Your task to perform on an android device: Set the phone to "Do not disturb". Image 0: 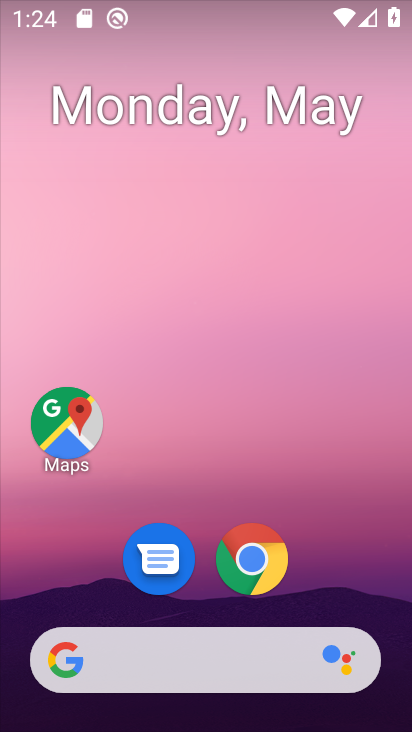
Step 0: click (257, 83)
Your task to perform on an android device: Set the phone to "Do not disturb". Image 1: 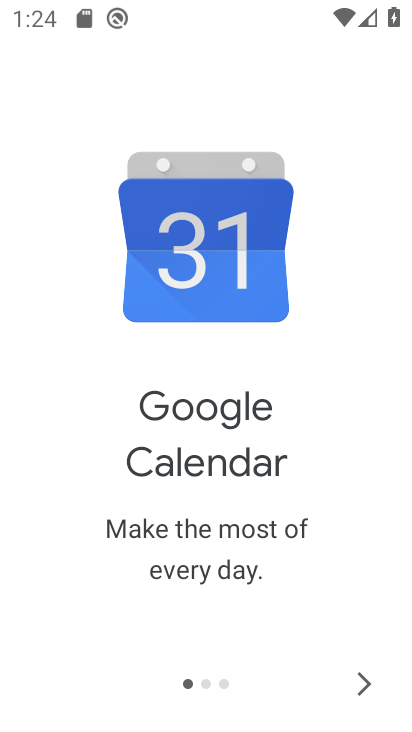
Step 1: press home button
Your task to perform on an android device: Set the phone to "Do not disturb". Image 2: 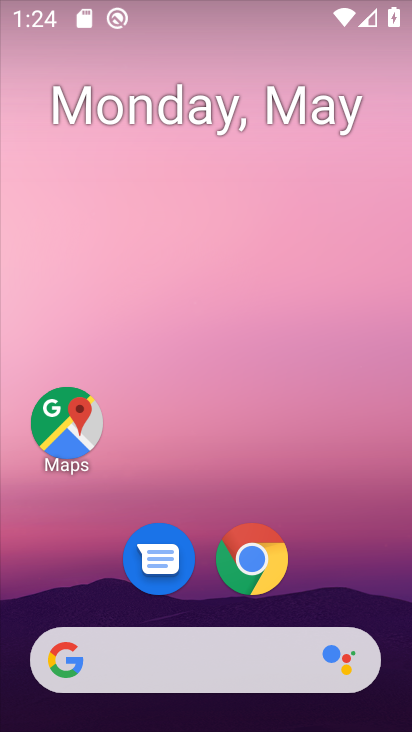
Step 2: drag from (332, 583) to (293, 172)
Your task to perform on an android device: Set the phone to "Do not disturb". Image 3: 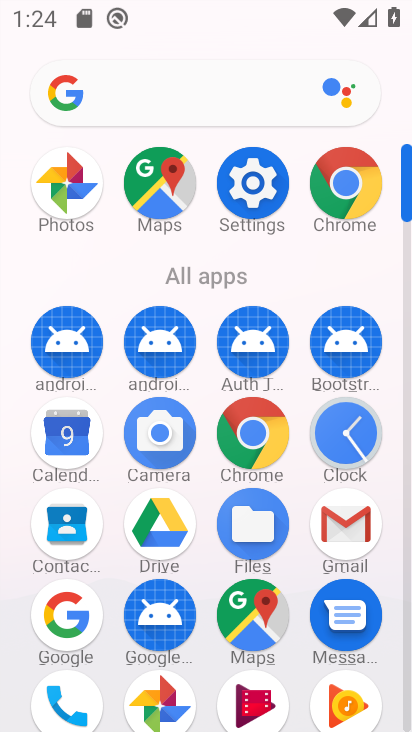
Step 3: drag from (250, 182) to (97, 197)
Your task to perform on an android device: Set the phone to "Do not disturb". Image 4: 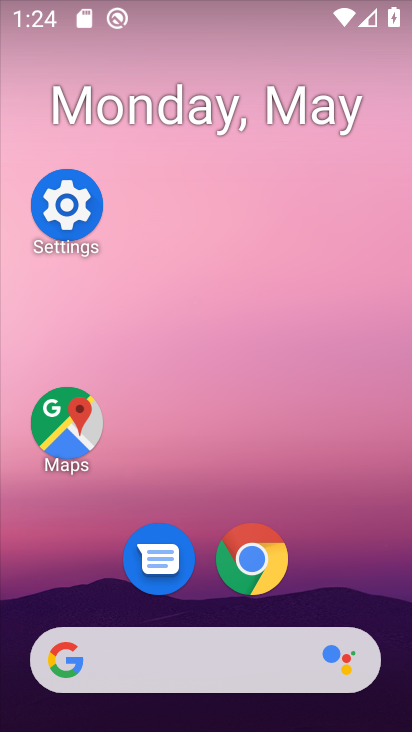
Step 4: click (88, 203)
Your task to perform on an android device: Set the phone to "Do not disturb". Image 5: 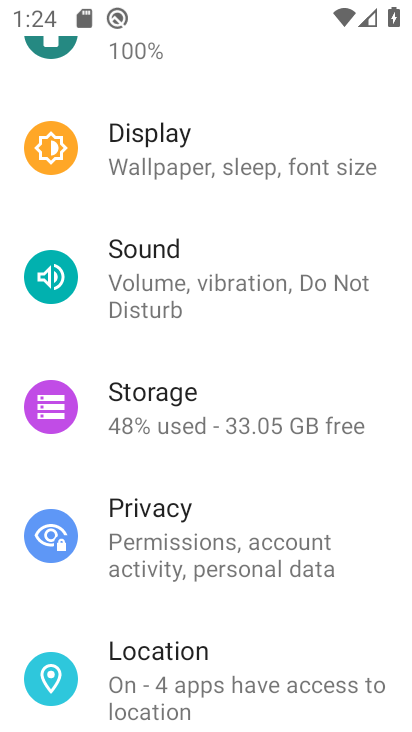
Step 5: drag from (278, 619) to (266, 448)
Your task to perform on an android device: Set the phone to "Do not disturb". Image 6: 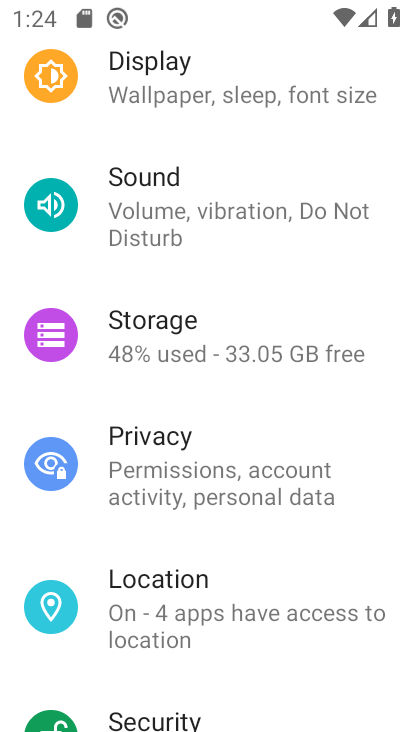
Step 6: click (178, 225)
Your task to perform on an android device: Set the phone to "Do not disturb". Image 7: 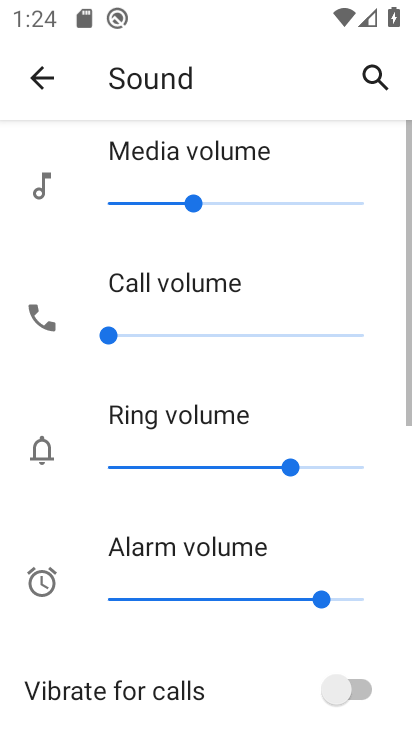
Step 7: drag from (260, 667) to (193, 215)
Your task to perform on an android device: Set the phone to "Do not disturb". Image 8: 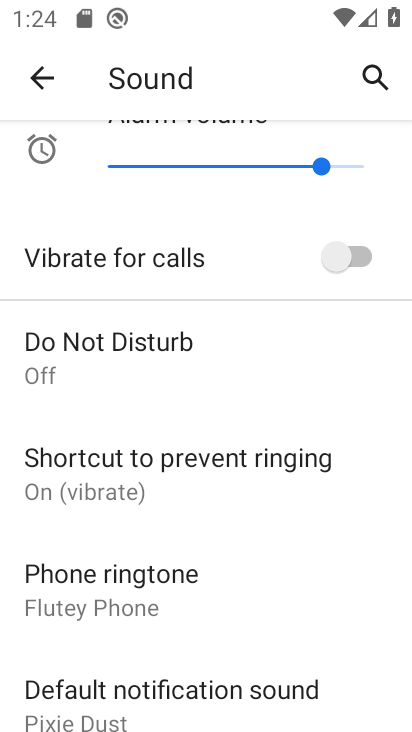
Step 8: click (176, 321)
Your task to perform on an android device: Set the phone to "Do not disturb". Image 9: 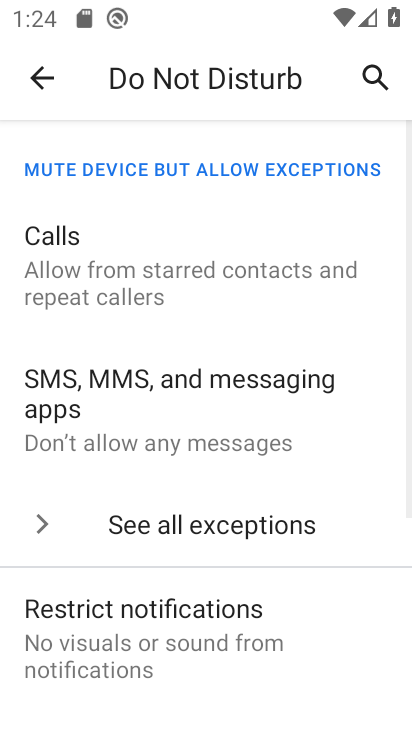
Step 9: drag from (261, 641) to (220, 241)
Your task to perform on an android device: Set the phone to "Do not disturb". Image 10: 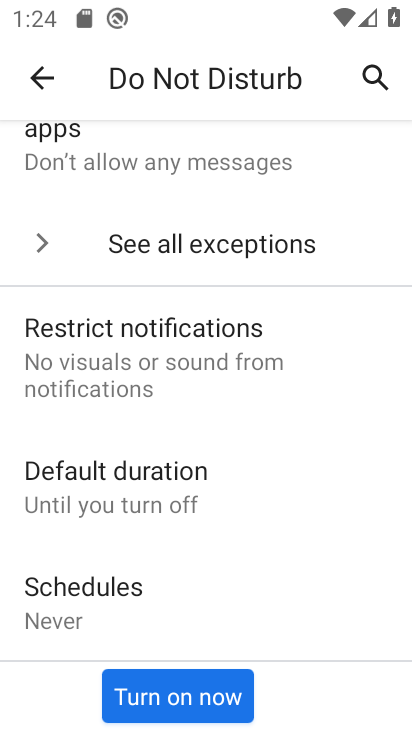
Step 10: click (203, 684)
Your task to perform on an android device: Set the phone to "Do not disturb". Image 11: 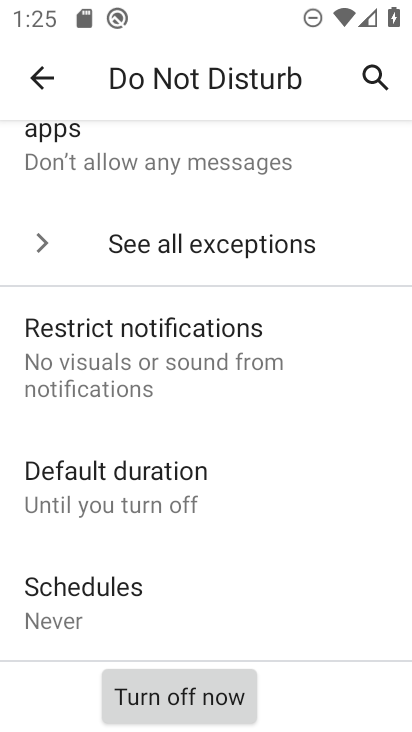
Step 11: task complete